Your task to perform on an android device: change notifications settings Image 0: 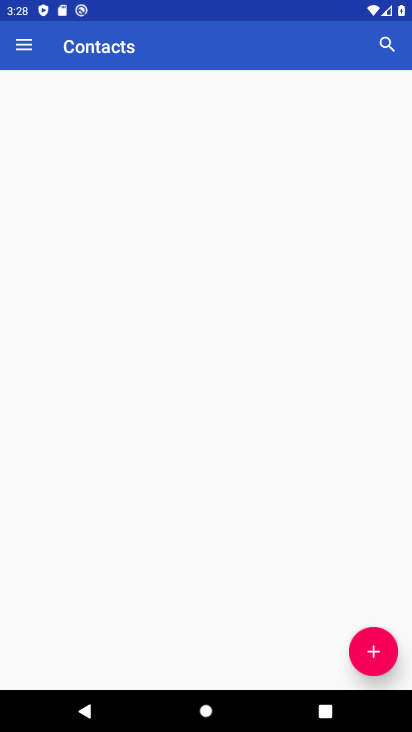
Step 0: press home button
Your task to perform on an android device: change notifications settings Image 1: 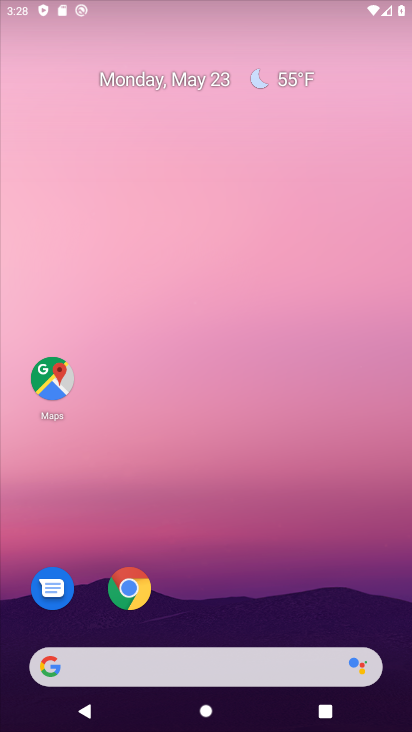
Step 1: drag from (220, 520) to (280, 73)
Your task to perform on an android device: change notifications settings Image 2: 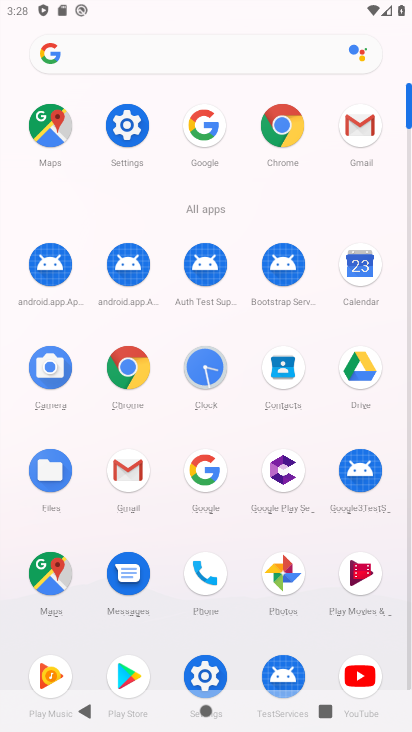
Step 2: click (126, 116)
Your task to perform on an android device: change notifications settings Image 3: 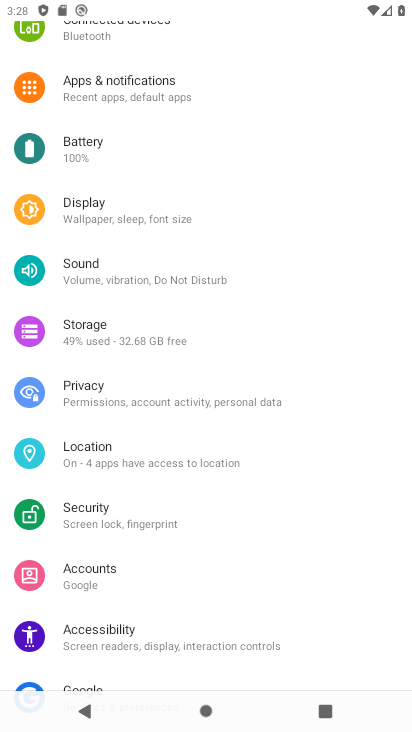
Step 3: click (141, 91)
Your task to perform on an android device: change notifications settings Image 4: 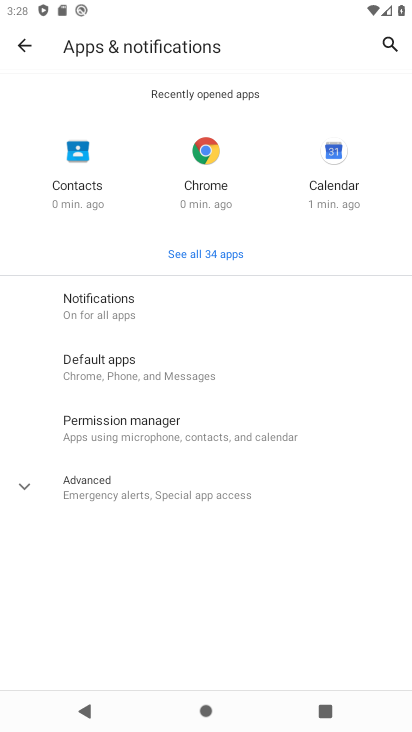
Step 4: click (112, 304)
Your task to perform on an android device: change notifications settings Image 5: 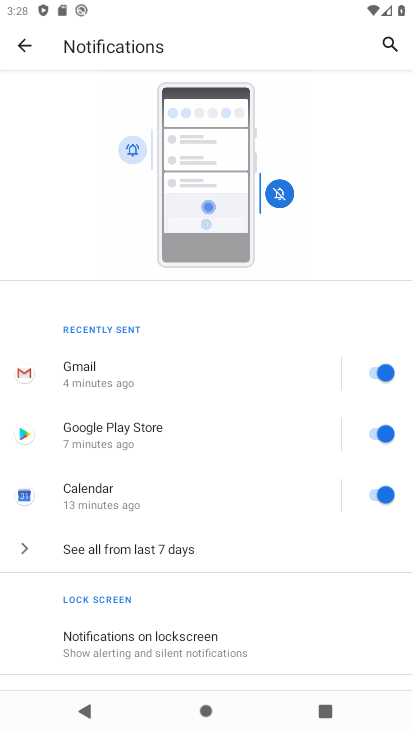
Step 5: drag from (243, 543) to (283, 135)
Your task to perform on an android device: change notifications settings Image 6: 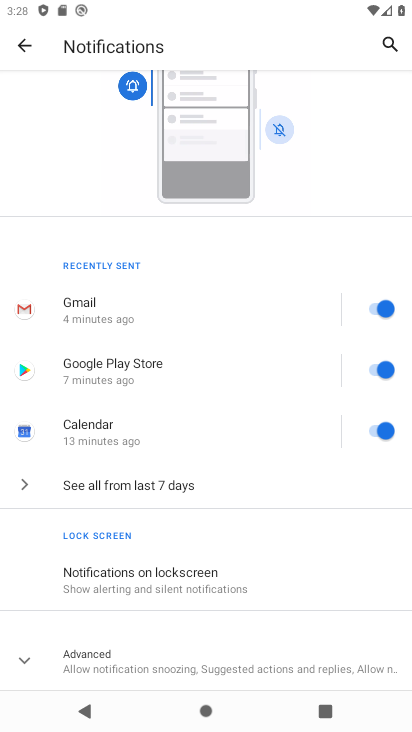
Step 6: click (126, 656)
Your task to perform on an android device: change notifications settings Image 7: 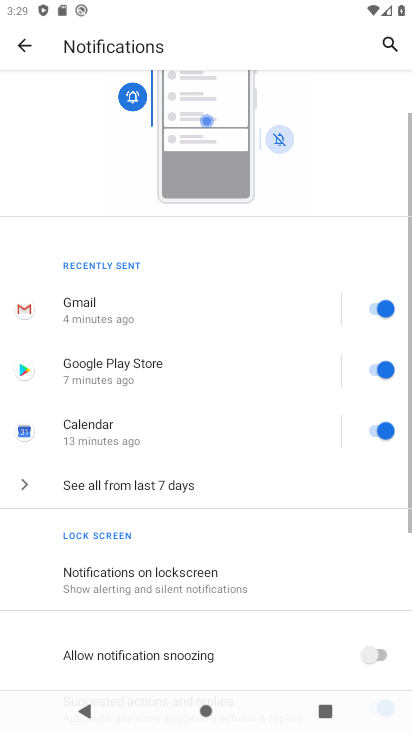
Step 7: drag from (278, 635) to (320, 162)
Your task to perform on an android device: change notifications settings Image 8: 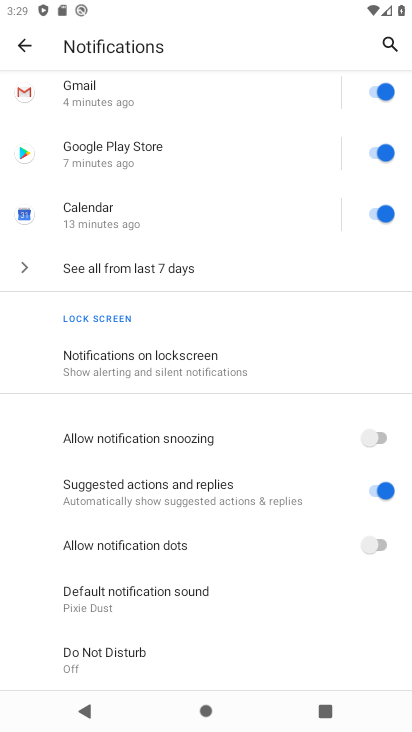
Step 8: click (376, 436)
Your task to perform on an android device: change notifications settings Image 9: 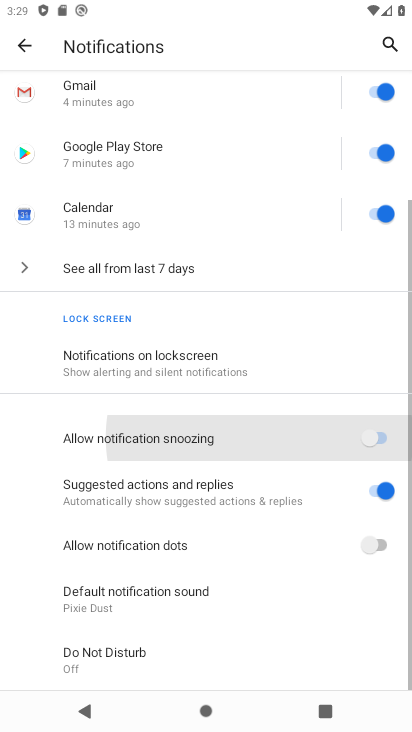
Step 9: click (376, 492)
Your task to perform on an android device: change notifications settings Image 10: 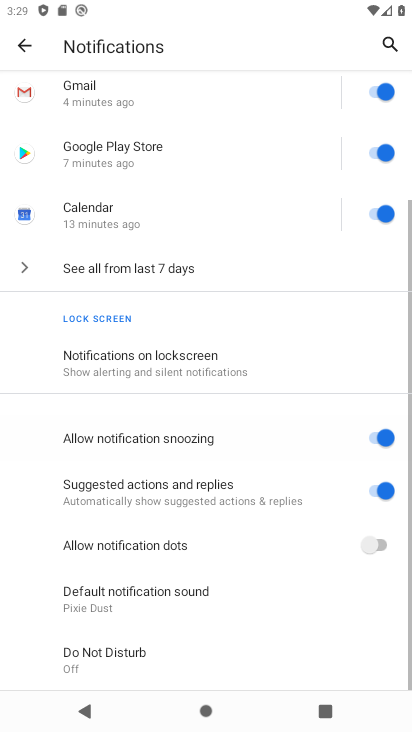
Step 10: click (362, 542)
Your task to perform on an android device: change notifications settings Image 11: 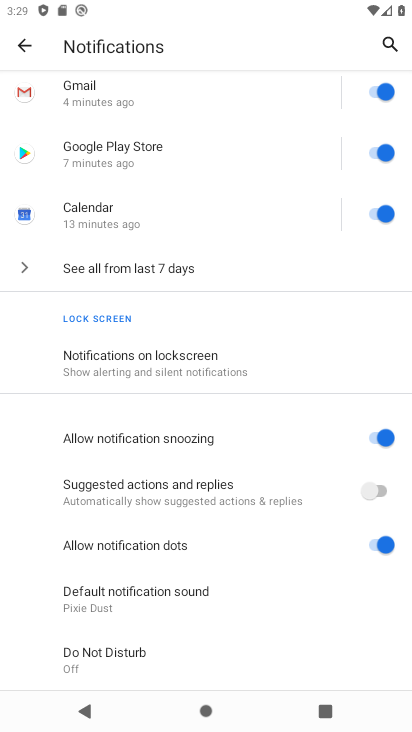
Step 11: task complete